Your task to perform on an android device: turn on translation in the chrome app Image 0: 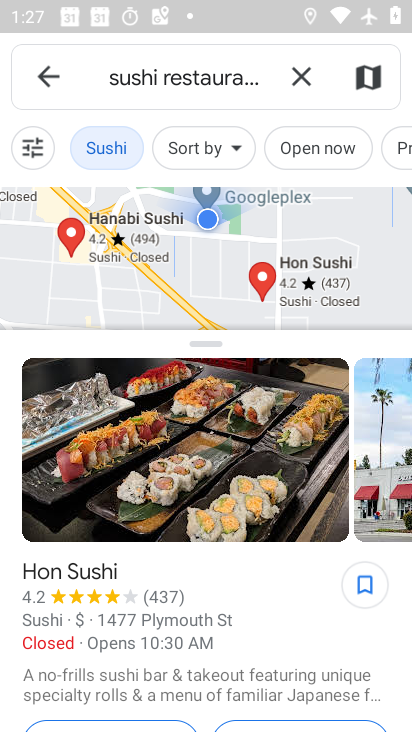
Step 0: press home button
Your task to perform on an android device: turn on translation in the chrome app Image 1: 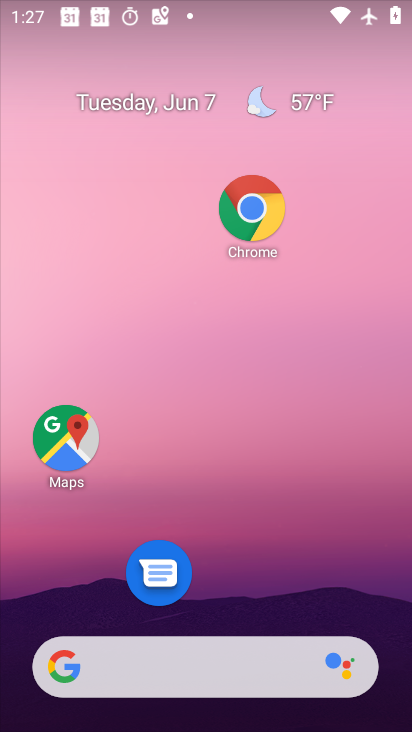
Step 1: click (241, 204)
Your task to perform on an android device: turn on translation in the chrome app Image 2: 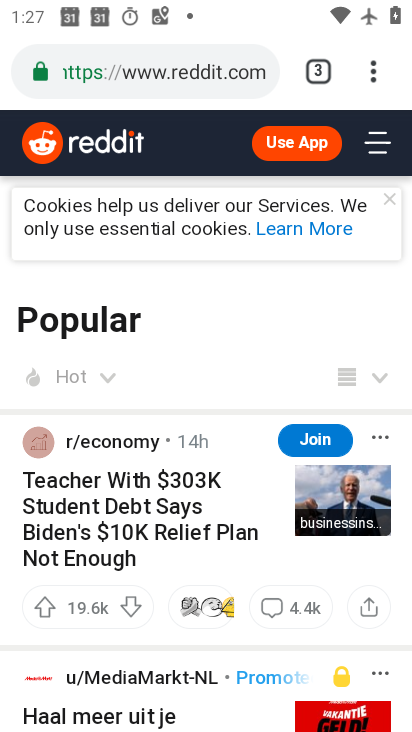
Step 2: click (381, 76)
Your task to perform on an android device: turn on translation in the chrome app Image 3: 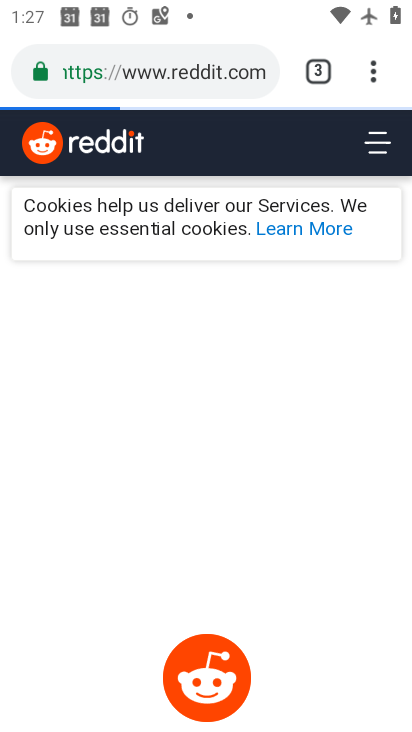
Step 3: click (364, 79)
Your task to perform on an android device: turn on translation in the chrome app Image 4: 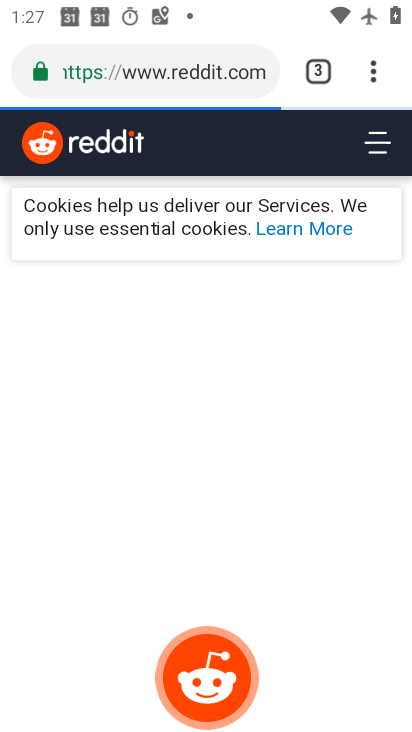
Step 4: drag from (364, 79) to (183, 576)
Your task to perform on an android device: turn on translation in the chrome app Image 5: 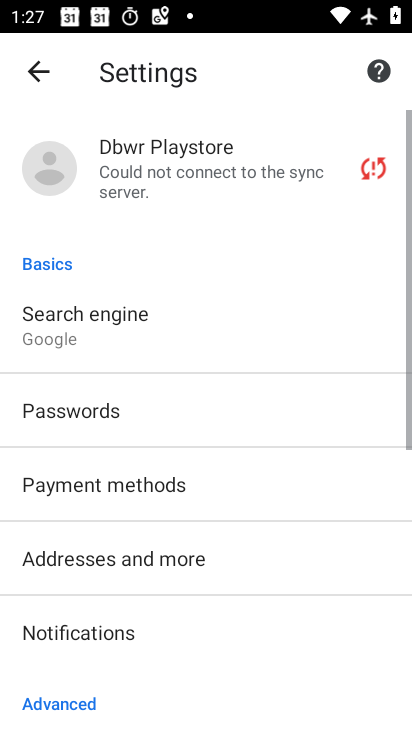
Step 5: drag from (225, 615) to (230, 267)
Your task to perform on an android device: turn on translation in the chrome app Image 6: 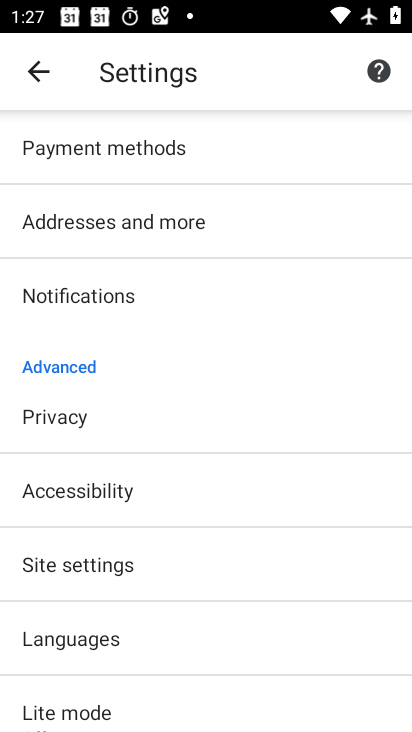
Step 6: drag from (211, 565) to (209, 312)
Your task to perform on an android device: turn on translation in the chrome app Image 7: 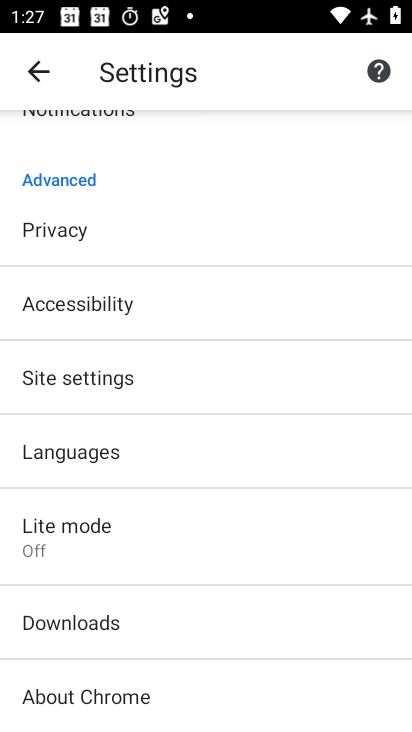
Step 7: click (147, 445)
Your task to perform on an android device: turn on translation in the chrome app Image 8: 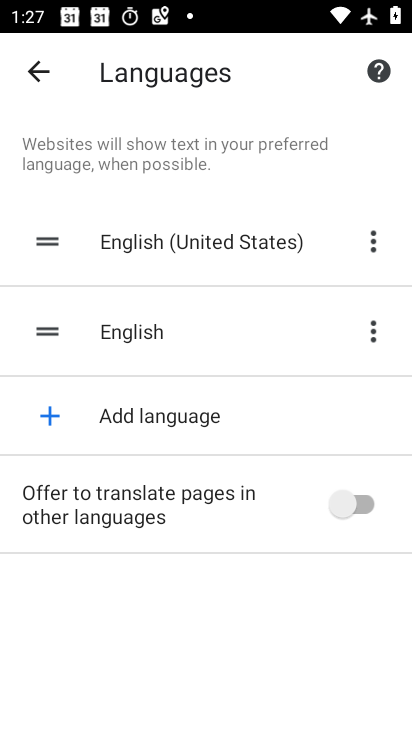
Step 8: click (354, 499)
Your task to perform on an android device: turn on translation in the chrome app Image 9: 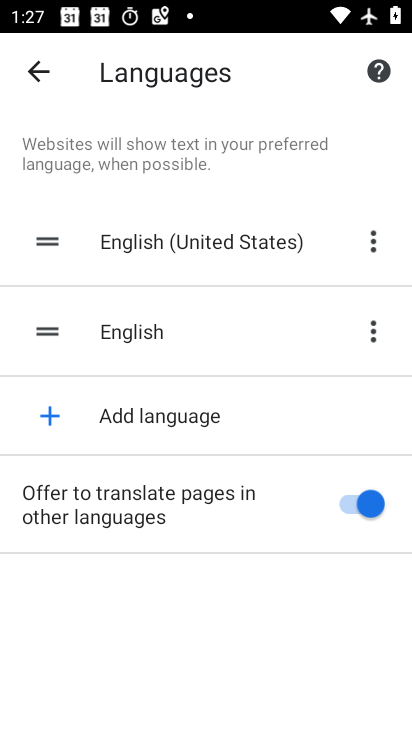
Step 9: task complete